Your task to perform on an android device: Search for seafood restaurants on Google Maps Image 0: 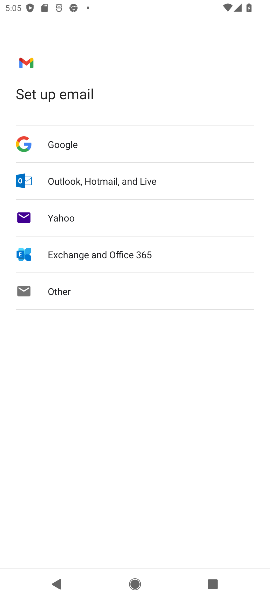
Step 0: press home button
Your task to perform on an android device: Search for seafood restaurants on Google Maps Image 1: 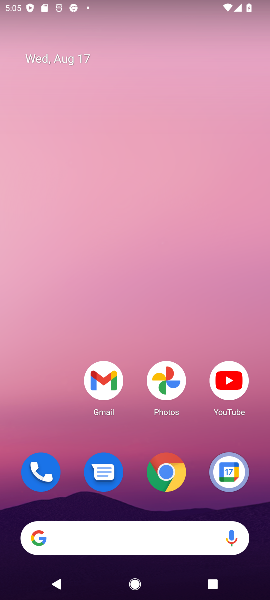
Step 1: drag from (131, 434) to (148, 43)
Your task to perform on an android device: Search for seafood restaurants on Google Maps Image 2: 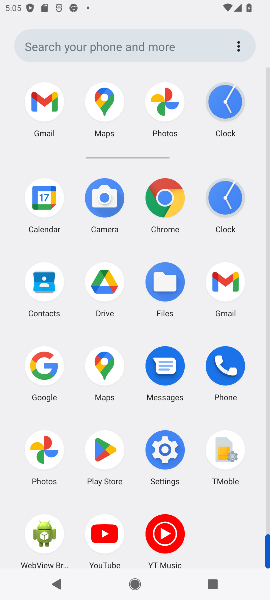
Step 2: click (101, 110)
Your task to perform on an android device: Search for seafood restaurants on Google Maps Image 3: 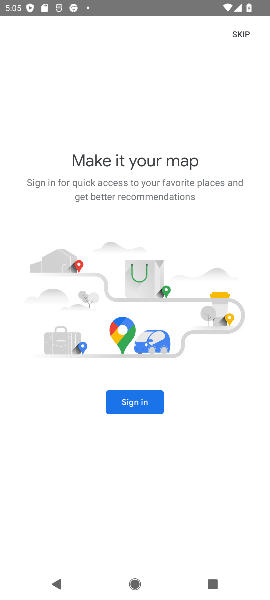
Step 3: task complete